Your task to perform on an android device: Search for pizza restaurants on Maps Image 0: 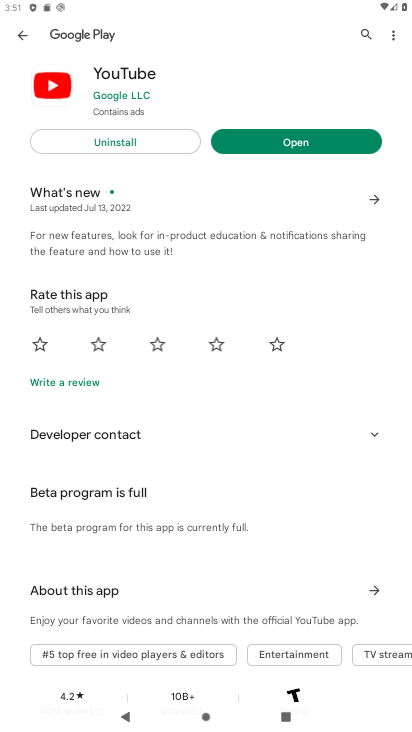
Step 0: press home button
Your task to perform on an android device: Search for pizza restaurants on Maps Image 1: 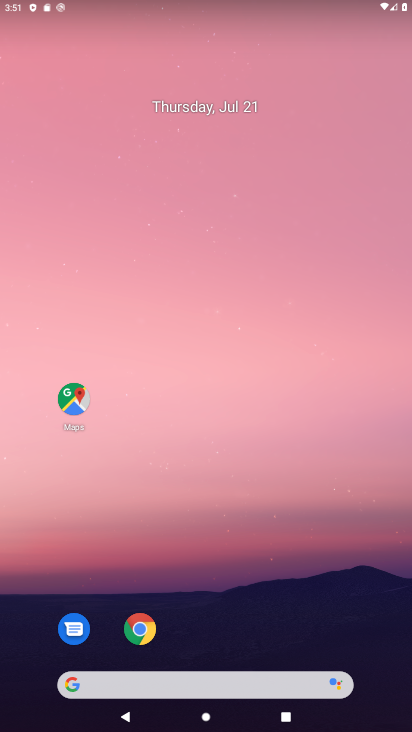
Step 1: drag from (257, 612) to (217, 136)
Your task to perform on an android device: Search for pizza restaurants on Maps Image 2: 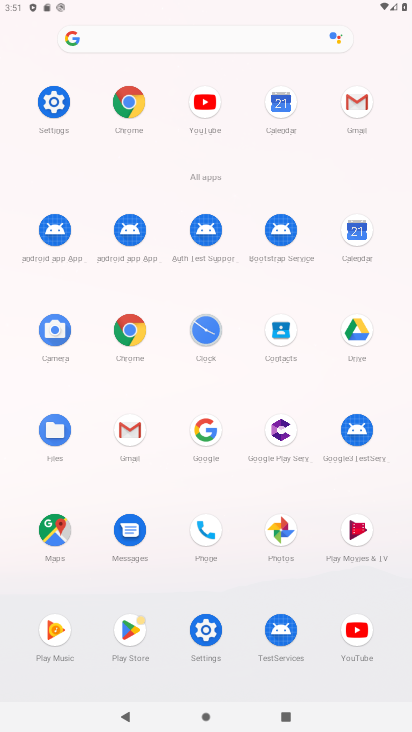
Step 2: click (61, 528)
Your task to perform on an android device: Search for pizza restaurants on Maps Image 3: 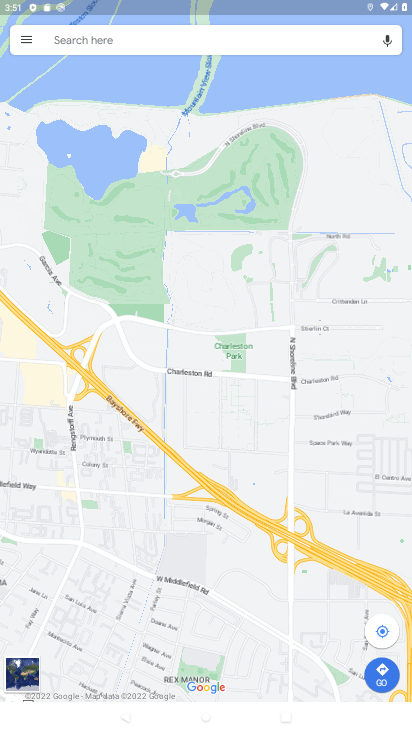
Step 3: click (145, 31)
Your task to perform on an android device: Search for pizza restaurants on Maps Image 4: 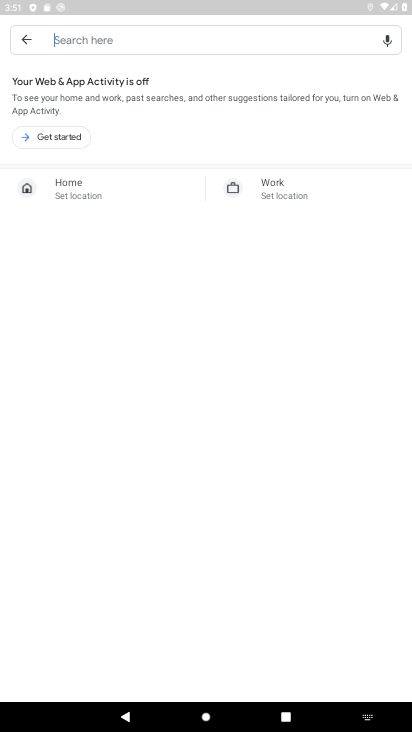
Step 4: type "pizza restaurants"
Your task to perform on an android device: Search for pizza restaurants on Maps Image 5: 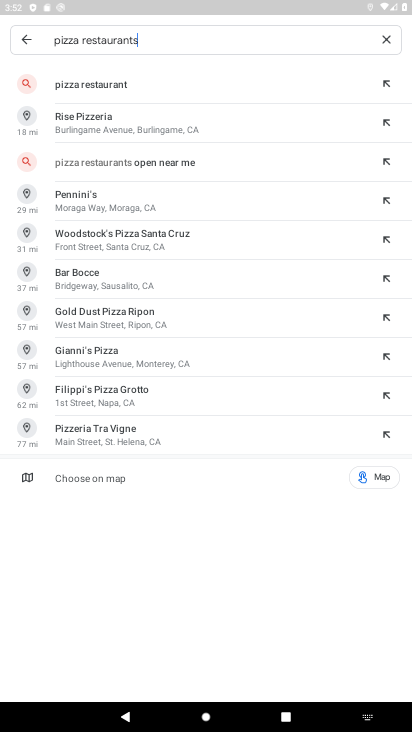
Step 5: click (252, 91)
Your task to perform on an android device: Search for pizza restaurants on Maps Image 6: 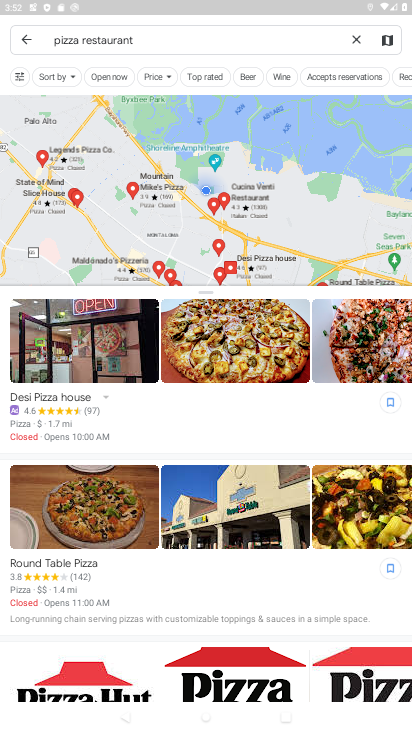
Step 6: task complete